Your task to perform on an android device: delete a single message in the gmail app Image 0: 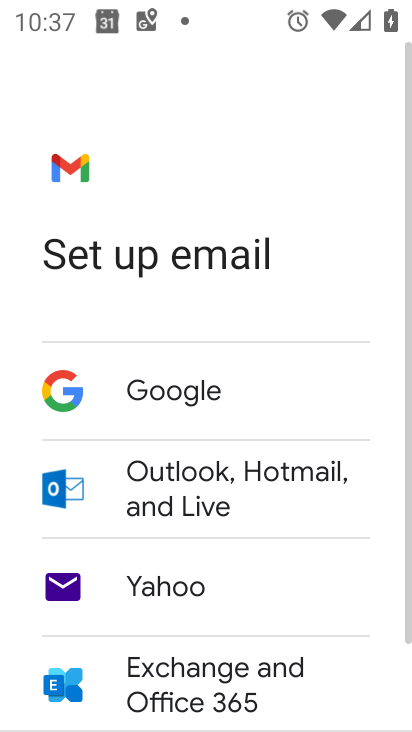
Step 0: press home button
Your task to perform on an android device: delete a single message in the gmail app Image 1: 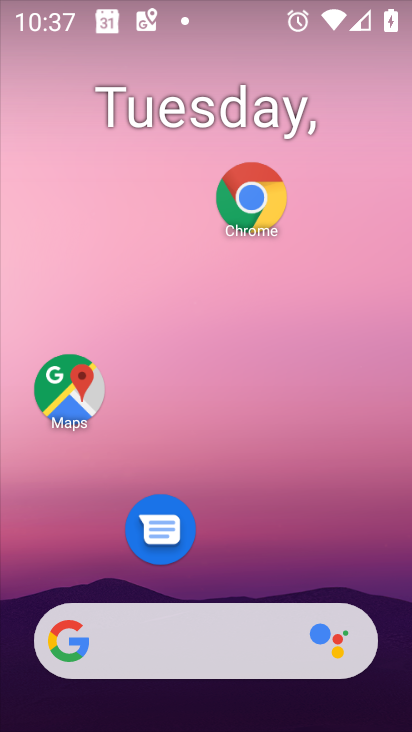
Step 1: drag from (293, 520) to (276, 0)
Your task to perform on an android device: delete a single message in the gmail app Image 2: 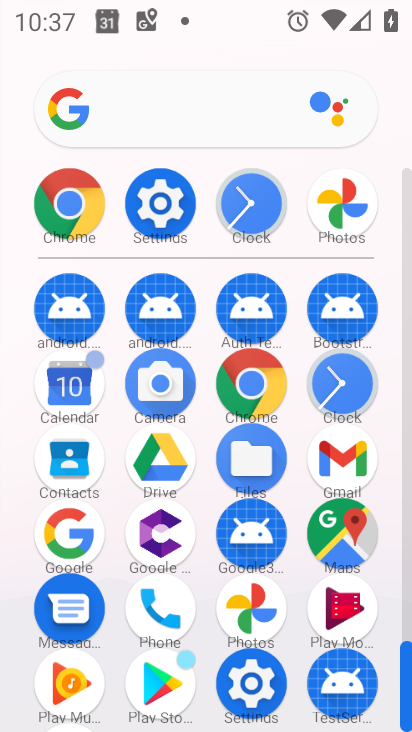
Step 2: click (342, 460)
Your task to perform on an android device: delete a single message in the gmail app Image 3: 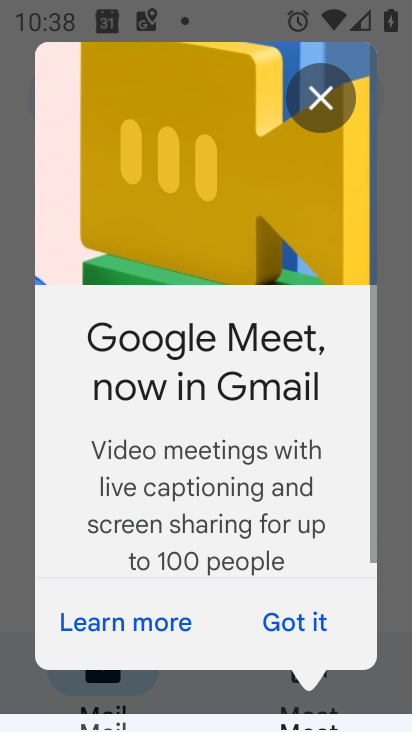
Step 3: click (285, 637)
Your task to perform on an android device: delete a single message in the gmail app Image 4: 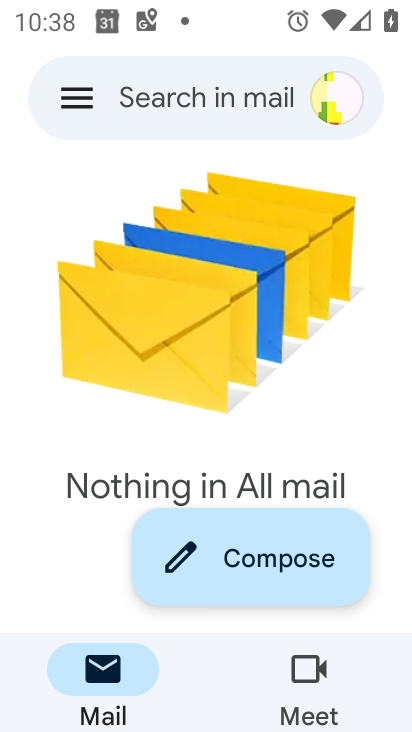
Step 4: click (87, 117)
Your task to perform on an android device: delete a single message in the gmail app Image 5: 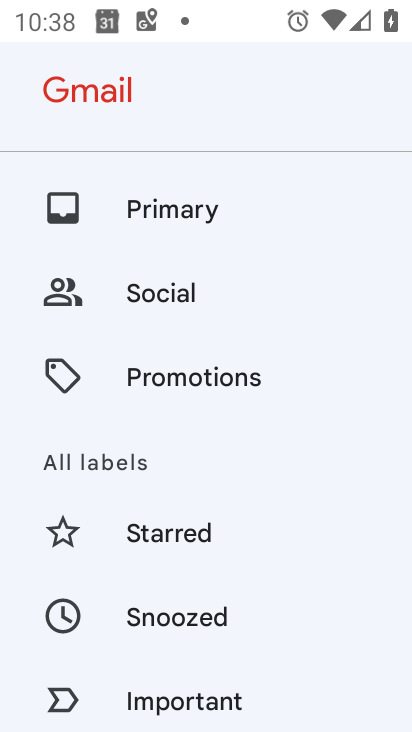
Step 5: drag from (189, 553) to (219, 265)
Your task to perform on an android device: delete a single message in the gmail app Image 6: 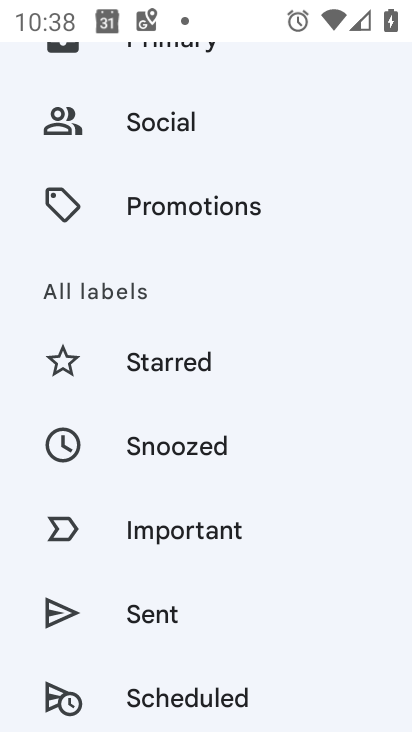
Step 6: drag from (211, 669) to (226, 313)
Your task to perform on an android device: delete a single message in the gmail app Image 7: 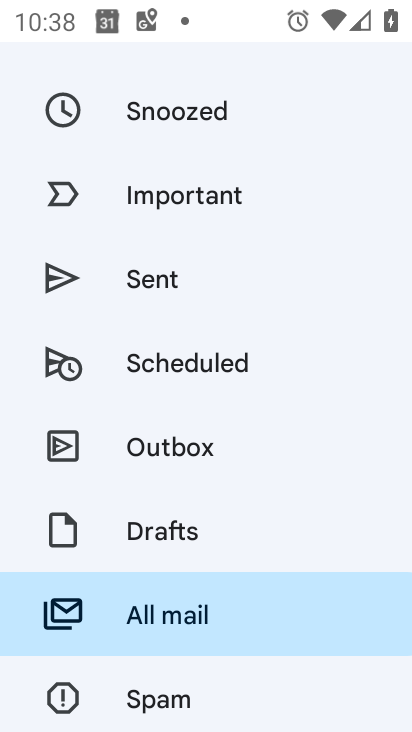
Step 7: drag from (223, 683) to (258, 512)
Your task to perform on an android device: delete a single message in the gmail app Image 8: 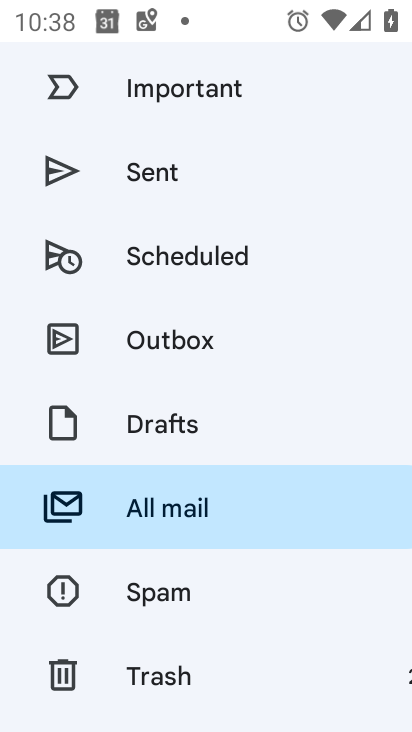
Step 8: click (238, 516)
Your task to perform on an android device: delete a single message in the gmail app Image 9: 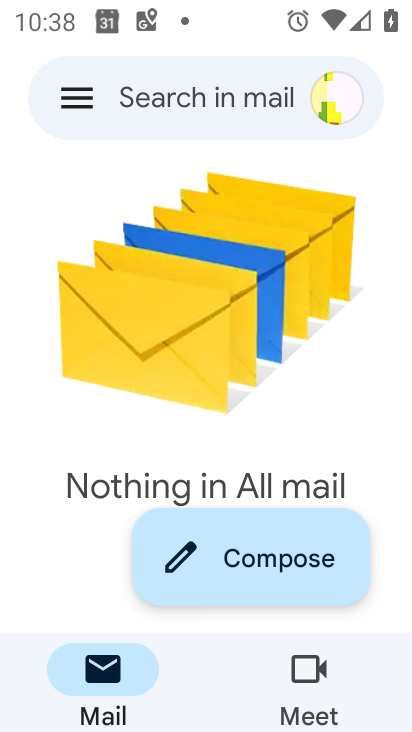
Step 9: task complete